Your task to perform on an android device: manage bookmarks in the chrome app Image 0: 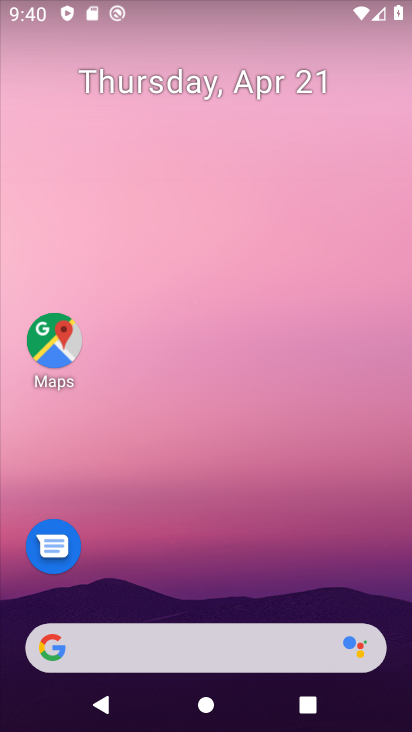
Step 0: drag from (170, 560) to (304, 61)
Your task to perform on an android device: manage bookmarks in the chrome app Image 1: 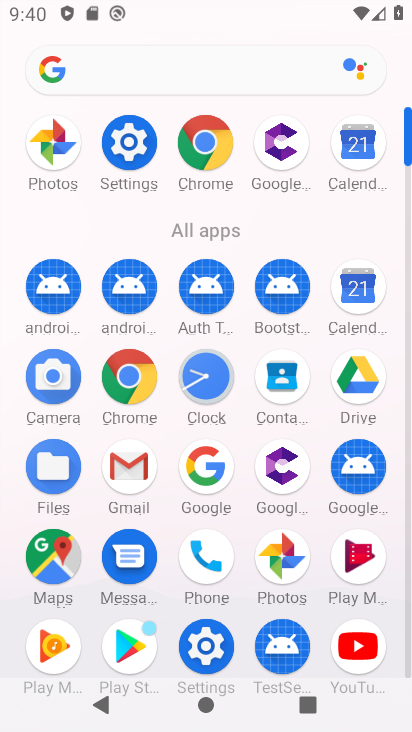
Step 1: click (132, 382)
Your task to perform on an android device: manage bookmarks in the chrome app Image 2: 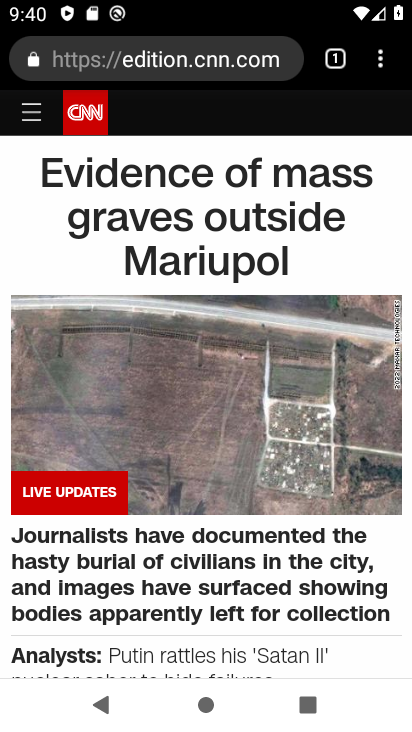
Step 2: drag from (389, 64) to (354, 215)
Your task to perform on an android device: manage bookmarks in the chrome app Image 3: 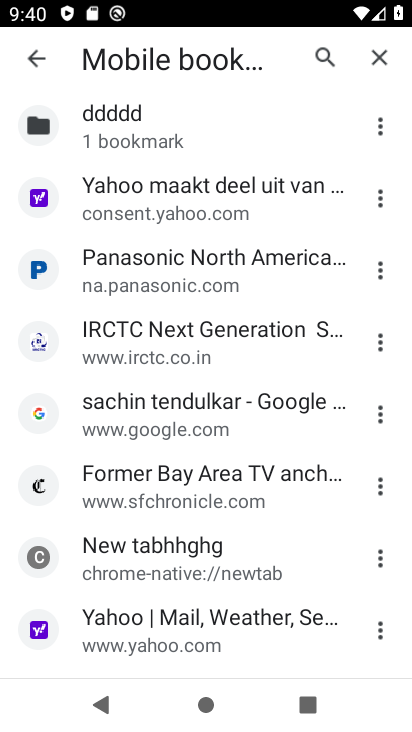
Step 3: drag from (267, 206) to (248, 274)
Your task to perform on an android device: manage bookmarks in the chrome app Image 4: 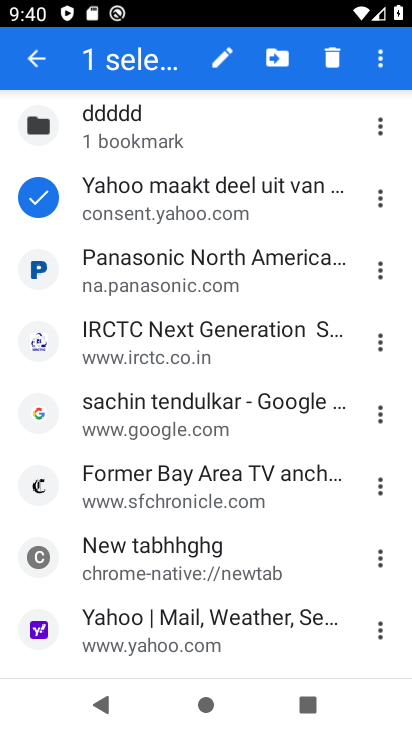
Step 4: click (248, 274)
Your task to perform on an android device: manage bookmarks in the chrome app Image 5: 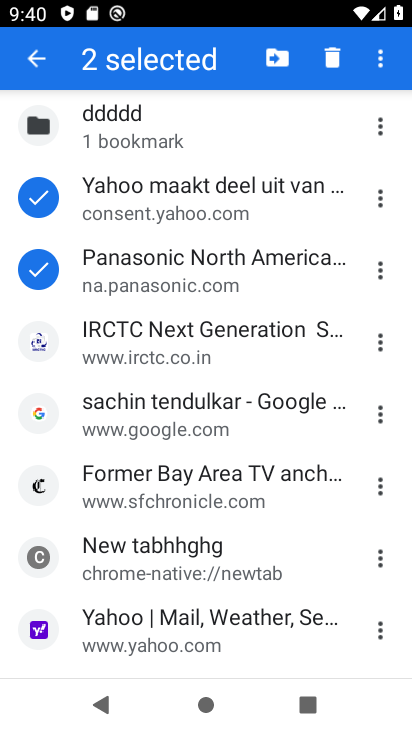
Step 5: click (208, 341)
Your task to perform on an android device: manage bookmarks in the chrome app Image 6: 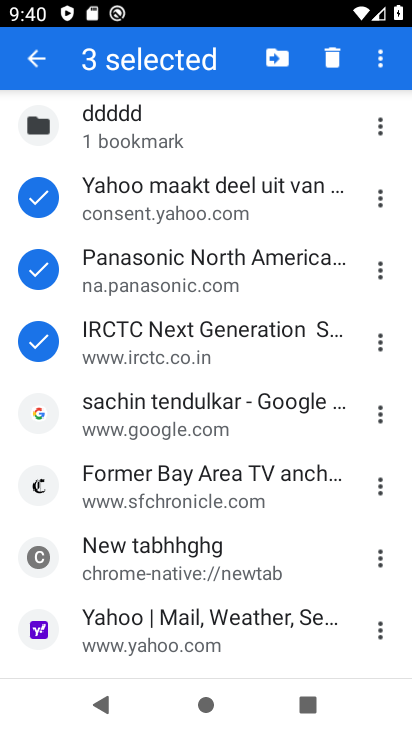
Step 6: click (175, 421)
Your task to perform on an android device: manage bookmarks in the chrome app Image 7: 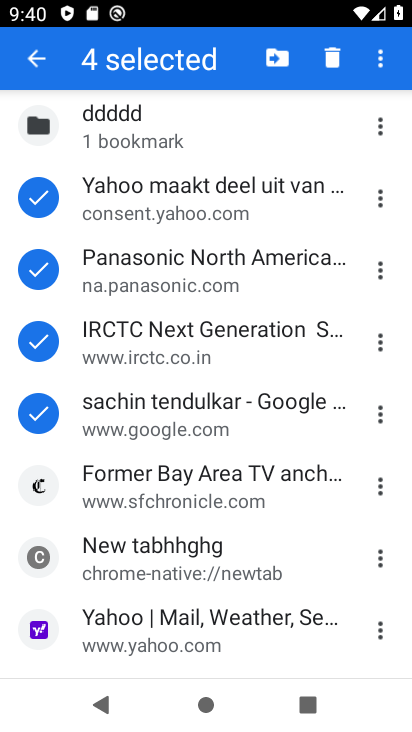
Step 7: click (172, 519)
Your task to perform on an android device: manage bookmarks in the chrome app Image 8: 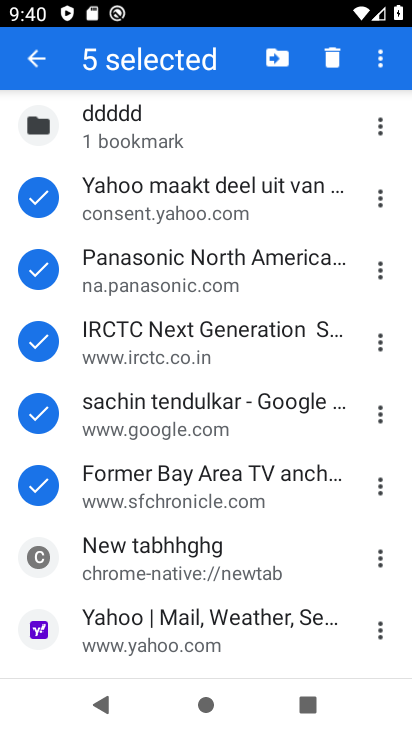
Step 8: click (146, 565)
Your task to perform on an android device: manage bookmarks in the chrome app Image 9: 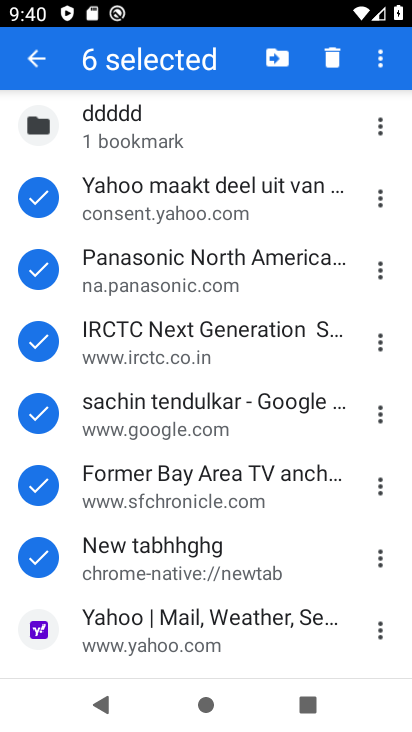
Step 9: click (149, 637)
Your task to perform on an android device: manage bookmarks in the chrome app Image 10: 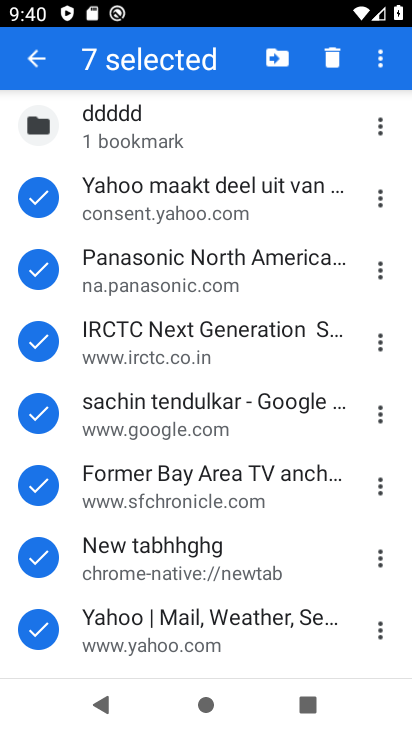
Step 10: drag from (163, 599) to (292, 164)
Your task to perform on an android device: manage bookmarks in the chrome app Image 11: 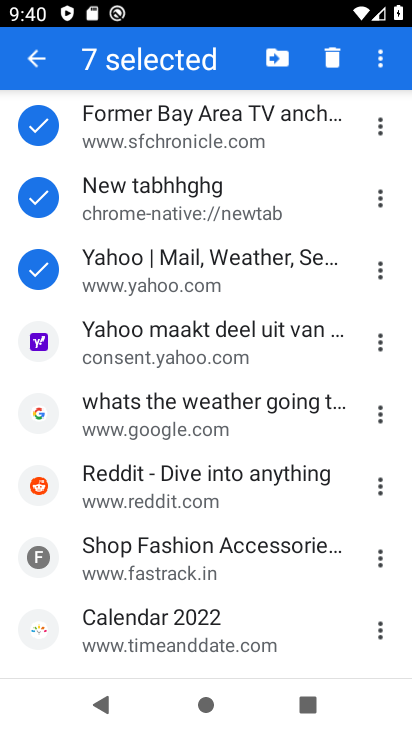
Step 11: click (204, 353)
Your task to perform on an android device: manage bookmarks in the chrome app Image 12: 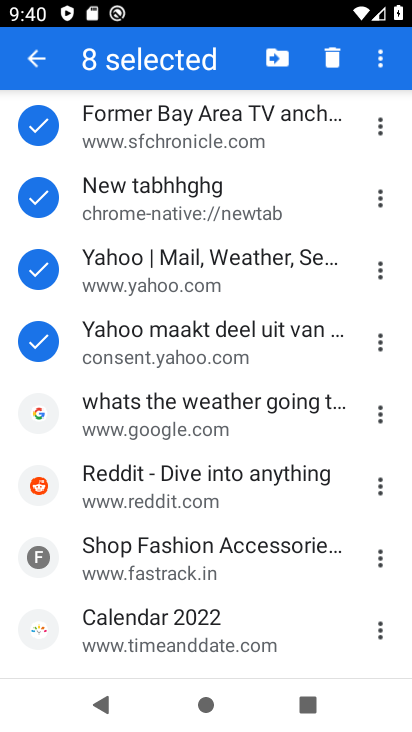
Step 12: click (195, 382)
Your task to perform on an android device: manage bookmarks in the chrome app Image 13: 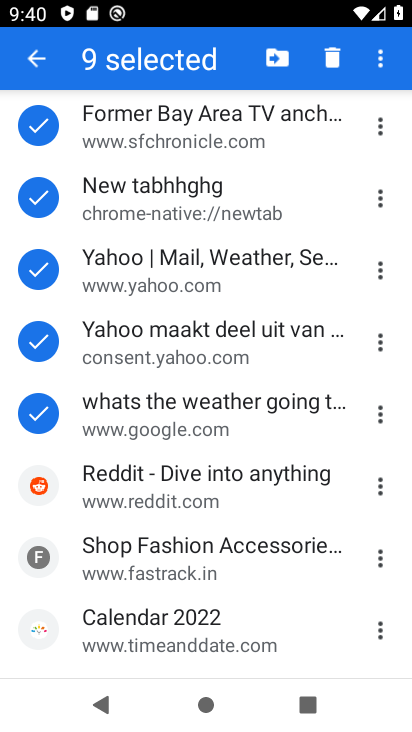
Step 13: click (170, 488)
Your task to perform on an android device: manage bookmarks in the chrome app Image 14: 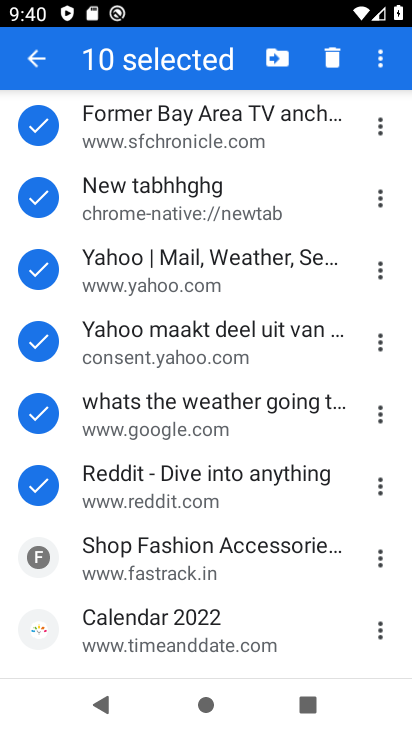
Step 14: drag from (174, 569) to (174, 606)
Your task to perform on an android device: manage bookmarks in the chrome app Image 15: 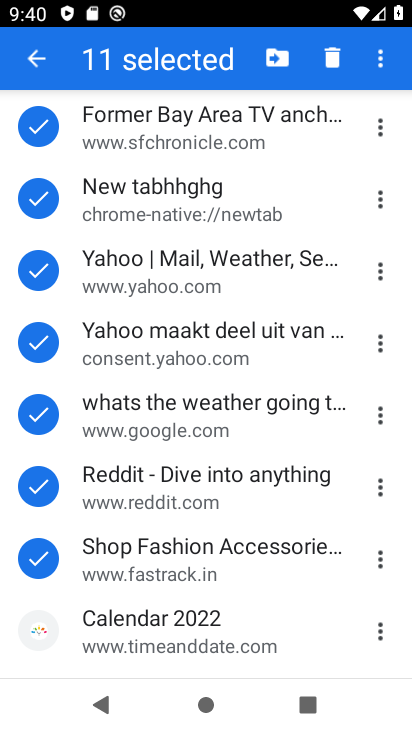
Step 15: click (174, 606)
Your task to perform on an android device: manage bookmarks in the chrome app Image 16: 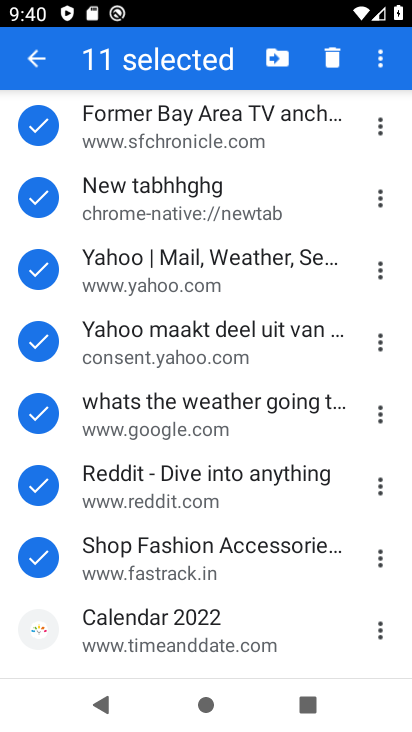
Step 16: click (164, 613)
Your task to perform on an android device: manage bookmarks in the chrome app Image 17: 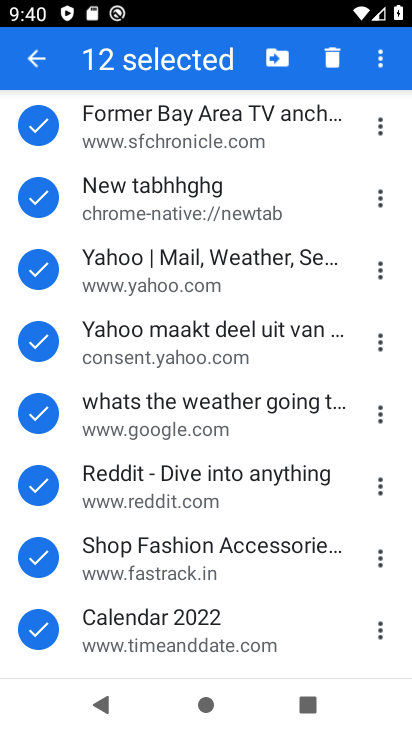
Step 17: drag from (207, 619) to (298, 101)
Your task to perform on an android device: manage bookmarks in the chrome app Image 18: 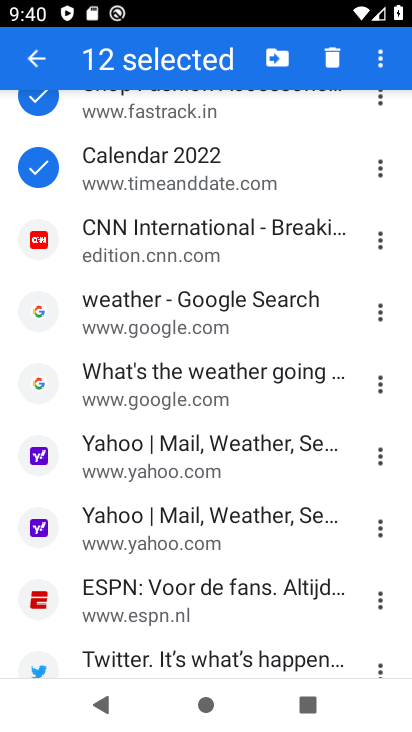
Step 18: click (178, 226)
Your task to perform on an android device: manage bookmarks in the chrome app Image 19: 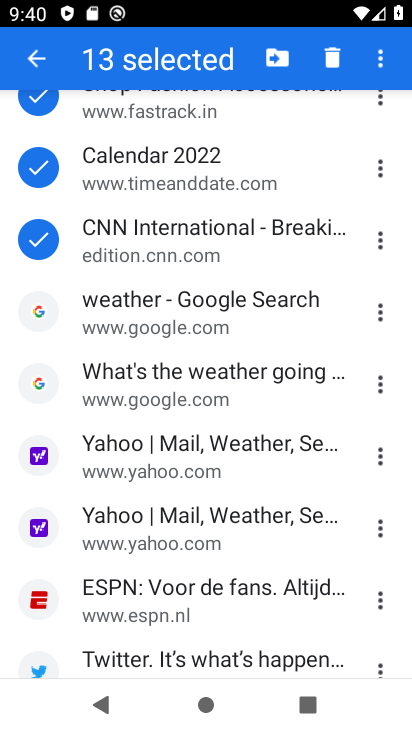
Step 19: click (164, 347)
Your task to perform on an android device: manage bookmarks in the chrome app Image 20: 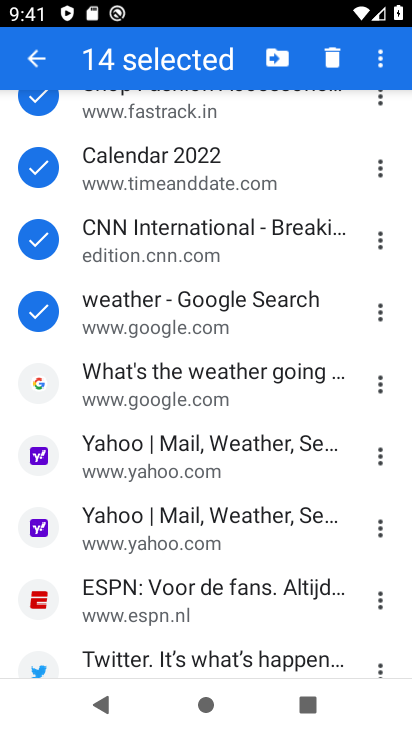
Step 20: click (164, 402)
Your task to perform on an android device: manage bookmarks in the chrome app Image 21: 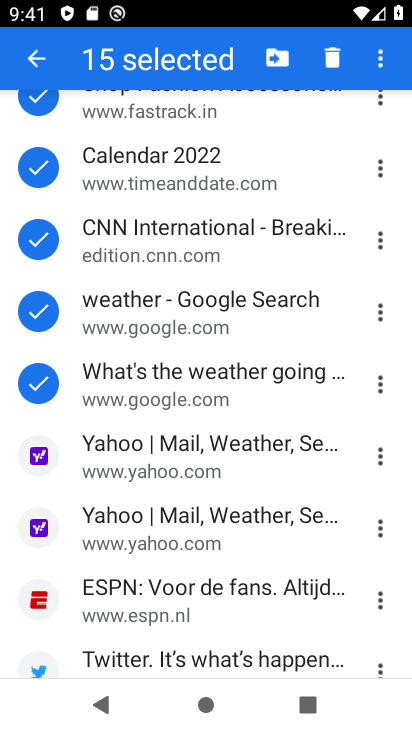
Step 21: drag from (130, 469) to (137, 521)
Your task to perform on an android device: manage bookmarks in the chrome app Image 22: 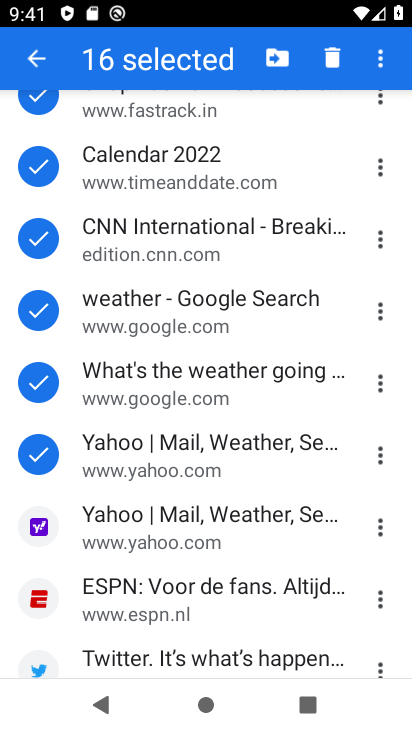
Step 22: click (141, 589)
Your task to perform on an android device: manage bookmarks in the chrome app Image 23: 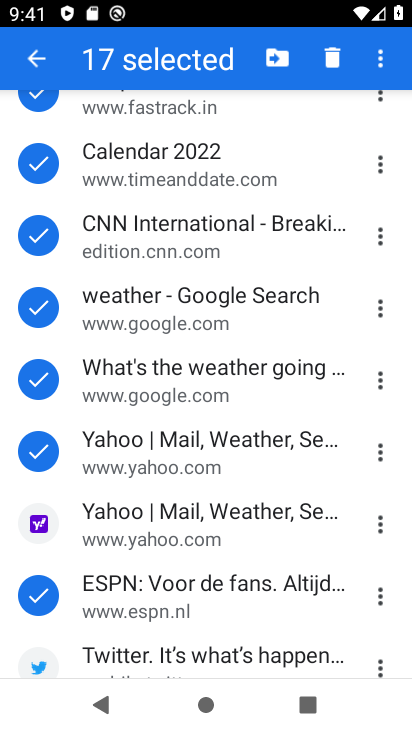
Step 23: click (170, 522)
Your task to perform on an android device: manage bookmarks in the chrome app Image 24: 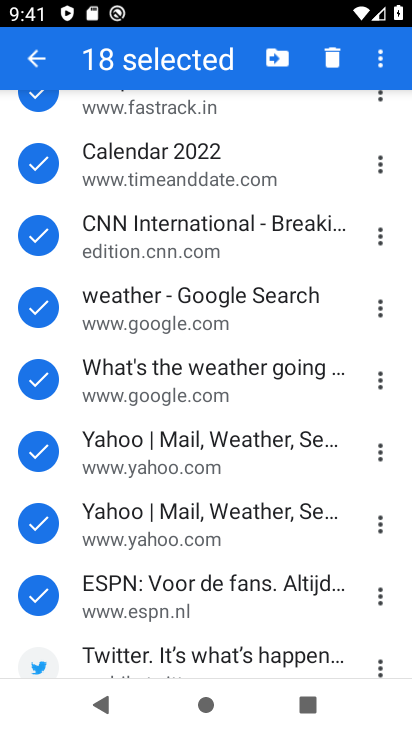
Step 24: drag from (156, 562) to (244, 169)
Your task to perform on an android device: manage bookmarks in the chrome app Image 25: 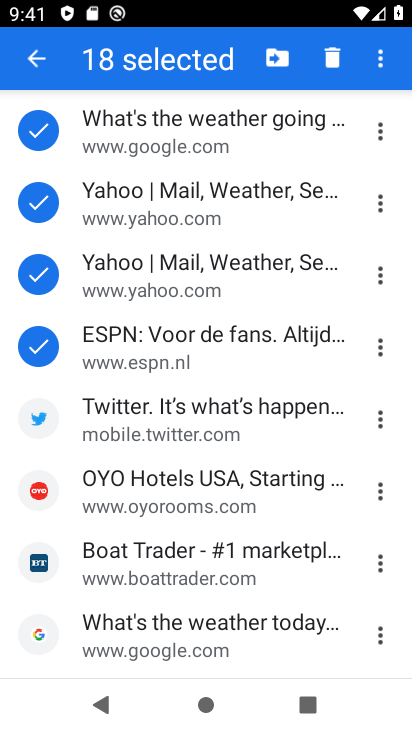
Step 25: click (160, 415)
Your task to perform on an android device: manage bookmarks in the chrome app Image 26: 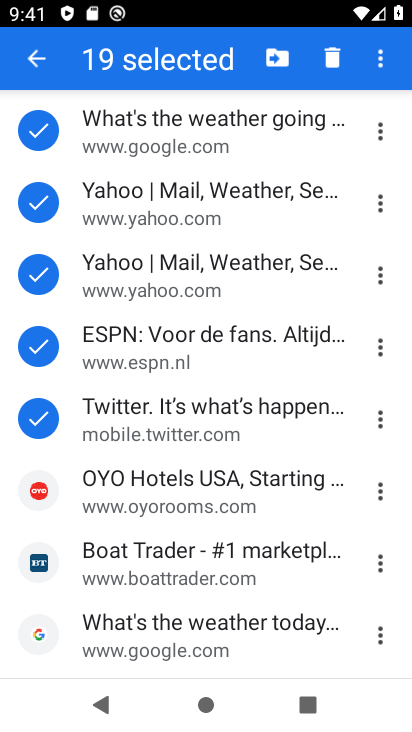
Step 26: click (149, 510)
Your task to perform on an android device: manage bookmarks in the chrome app Image 27: 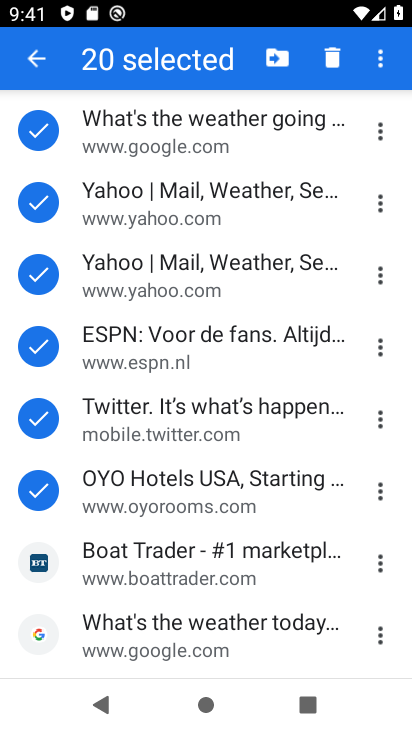
Step 27: click (161, 565)
Your task to perform on an android device: manage bookmarks in the chrome app Image 28: 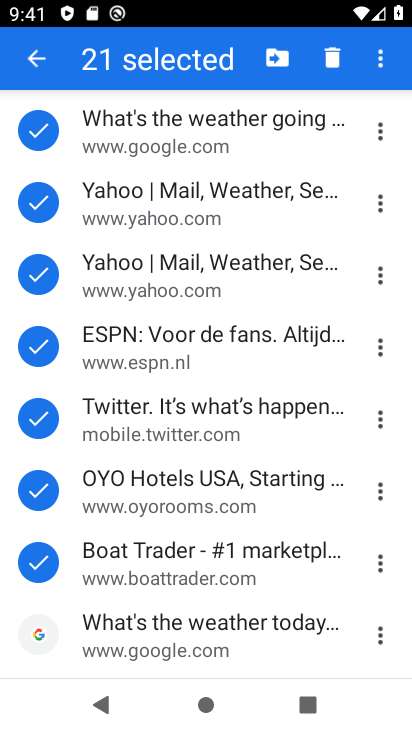
Step 28: click (141, 645)
Your task to perform on an android device: manage bookmarks in the chrome app Image 29: 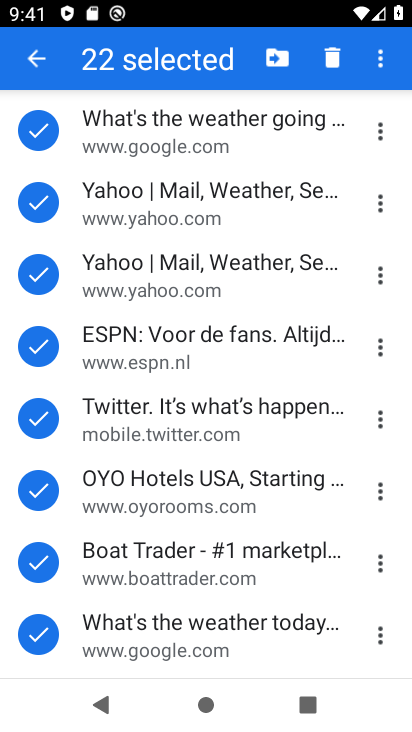
Step 29: drag from (145, 566) to (268, 73)
Your task to perform on an android device: manage bookmarks in the chrome app Image 30: 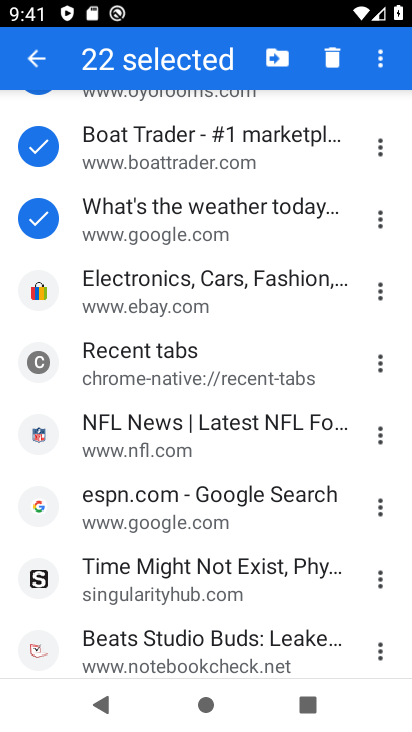
Step 30: click (175, 293)
Your task to perform on an android device: manage bookmarks in the chrome app Image 31: 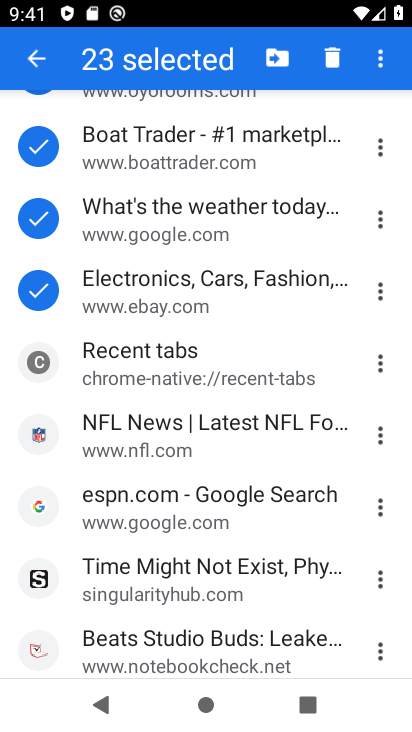
Step 31: click (175, 356)
Your task to perform on an android device: manage bookmarks in the chrome app Image 32: 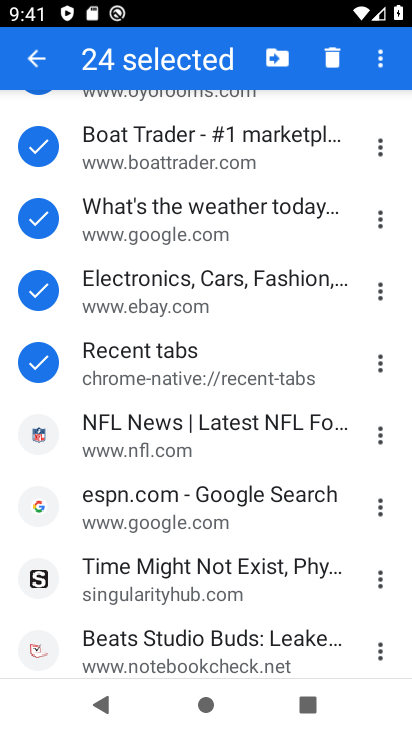
Step 32: click (155, 428)
Your task to perform on an android device: manage bookmarks in the chrome app Image 33: 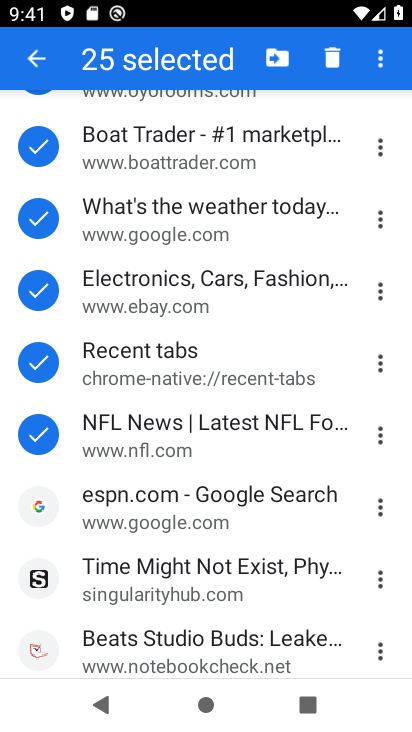
Step 33: click (160, 518)
Your task to perform on an android device: manage bookmarks in the chrome app Image 34: 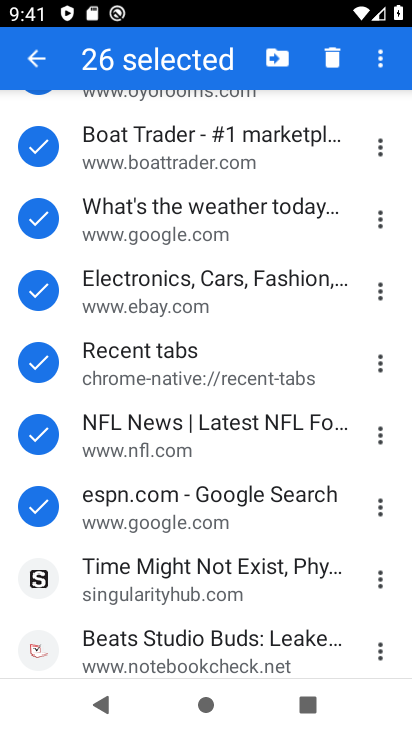
Step 34: click (145, 600)
Your task to perform on an android device: manage bookmarks in the chrome app Image 35: 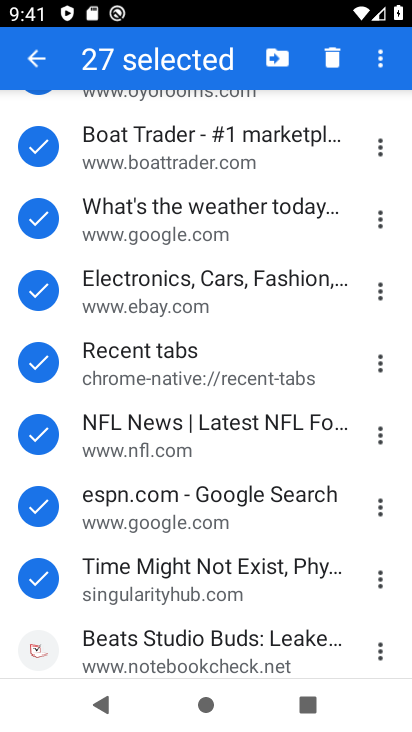
Step 35: click (138, 640)
Your task to perform on an android device: manage bookmarks in the chrome app Image 36: 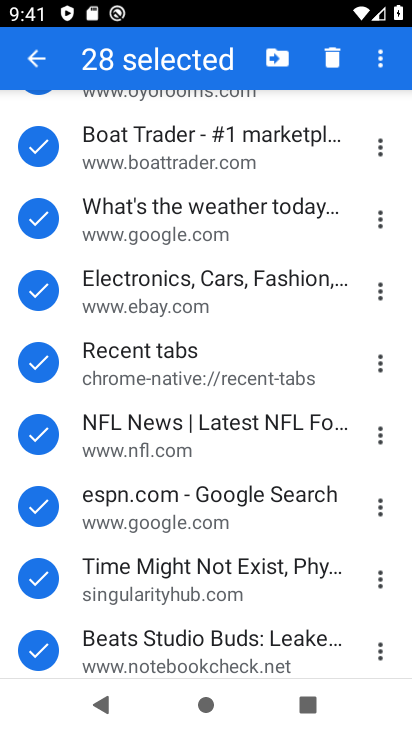
Step 36: drag from (137, 625) to (250, 76)
Your task to perform on an android device: manage bookmarks in the chrome app Image 37: 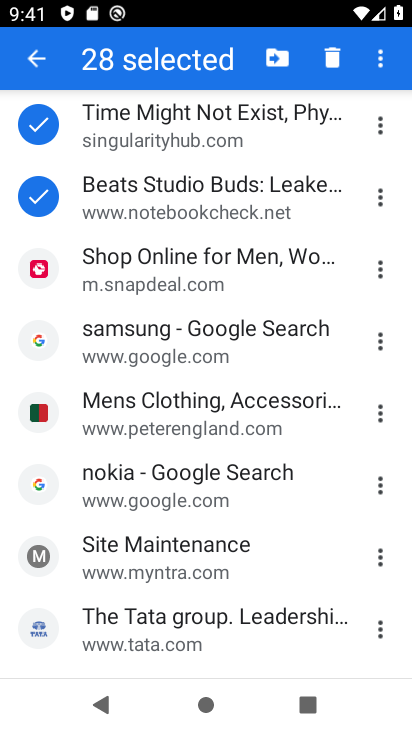
Step 37: click (145, 268)
Your task to perform on an android device: manage bookmarks in the chrome app Image 38: 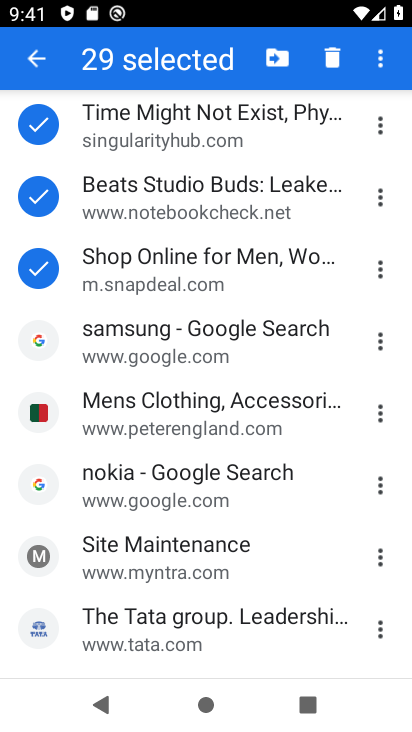
Step 38: click (156, 339)
Your task to perform on an android device: manage bookmarks in the chrome app Image 39: 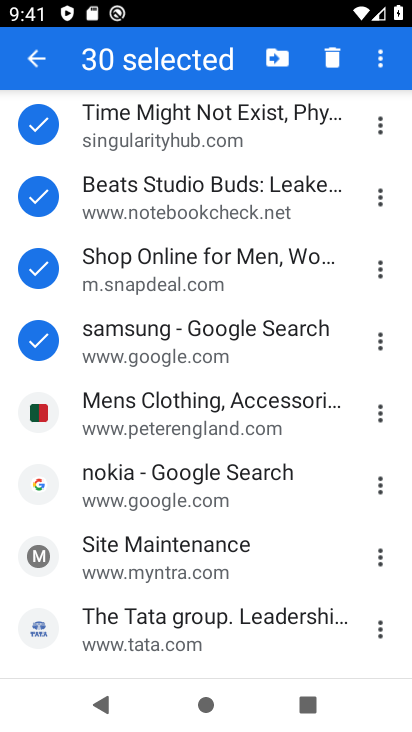
Step 39: click (150, 420)
Your task to perform on an android device: manage bookmarks in the chrome app Image 40: 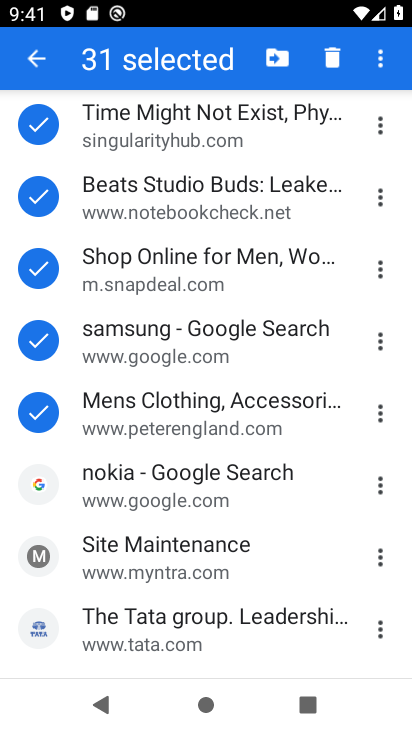
Step 40: click (151, 489)
Your task to perform on an android device: manage bookmarks in the chrome app Image 41: 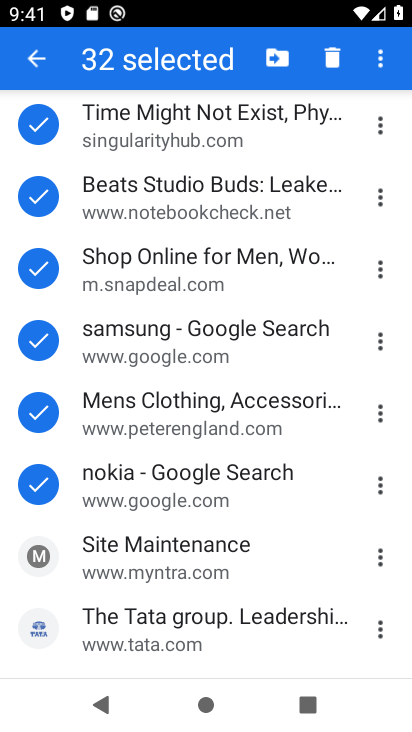
Step 41: click (161, 573)
Your task to perform on an android device: manage bookmarks in the chrome app Image 42: 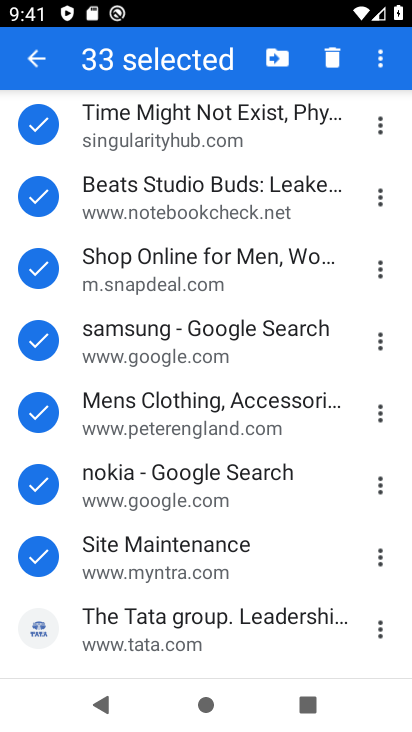
Step 42: click (179, 641)
Your task to perform on an android device: manage bookmarks in the chrome app Image 43: 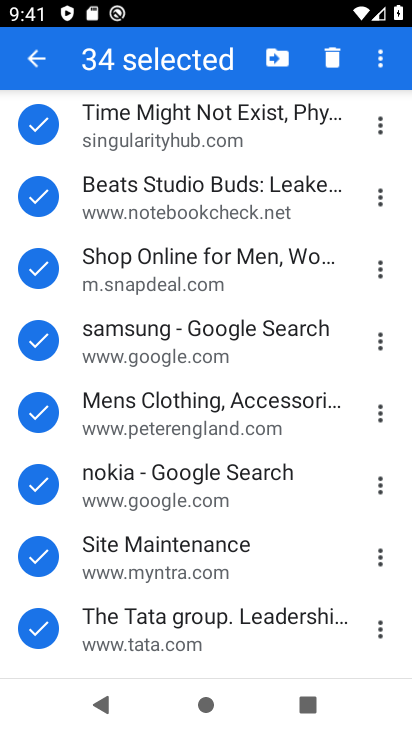
Step 43: drag from (194, 568) to (306, 43)
Your task to perform on an android device: manage bookmarks in the chrome app Image 44: 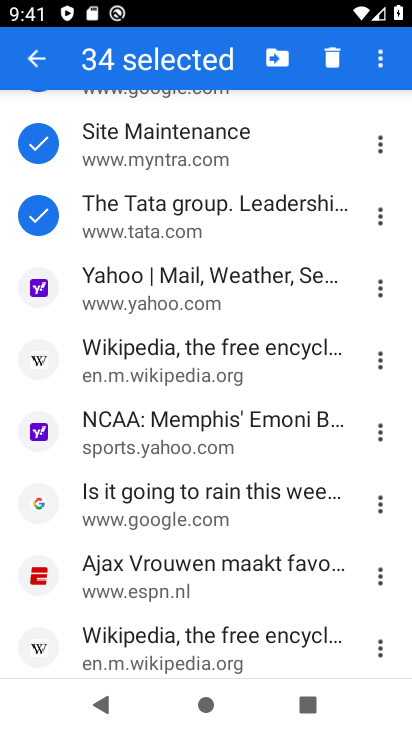
Step 44: click (158, 293)
Your task to perform on an android device: manage bookmarks in the chrome app Image 45: 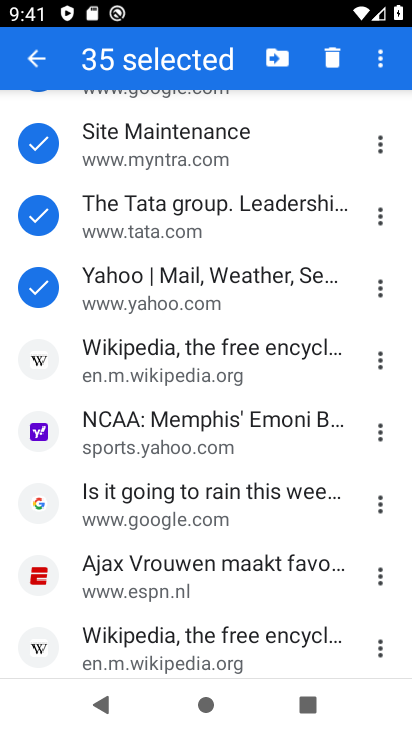
Step 45: click (153, 369)
Your task to perform on an android device: manage bookmarks in the chrome app Image 46: 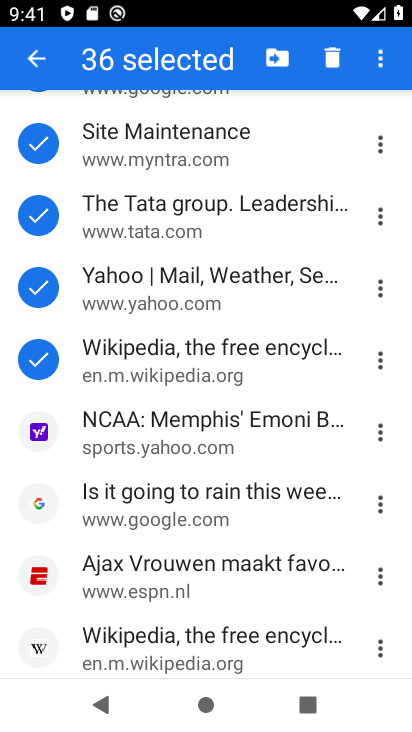
Step 46: click (142, 463)
Your task to perform on an android device: manage bookmarks in the chrome app Image 47: 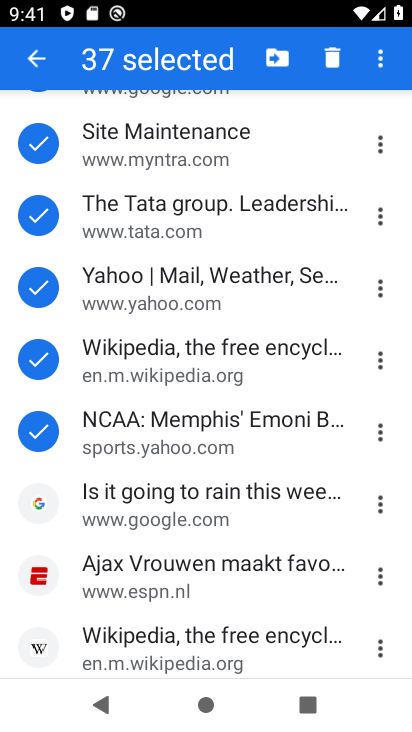
Step 47: click (120, 523)
Your task to perform on an android device: manage bookmarks in the chrome app Image 48: 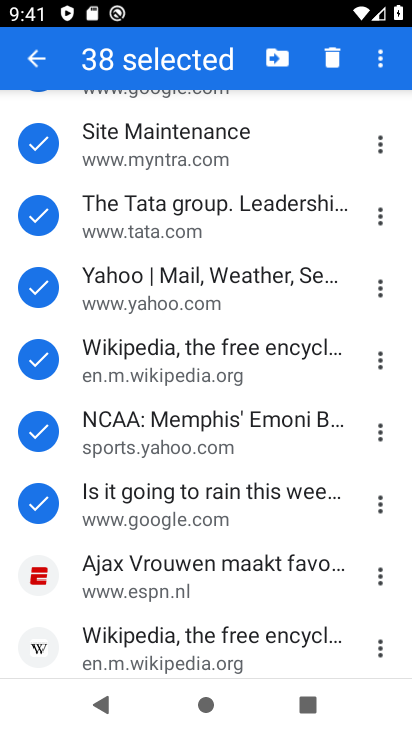
Step 48: click (118, 568)
Your task to perform on an android device: manage bookmarks in the chrome app Image 49: 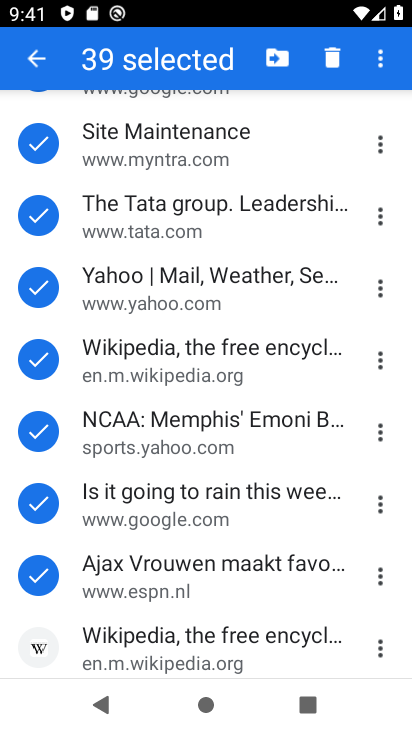
Step 49: drag from (104, 646) to (256, 31)
Your task to perform on an android device: manage bookmarks in the chrome app Image 50: 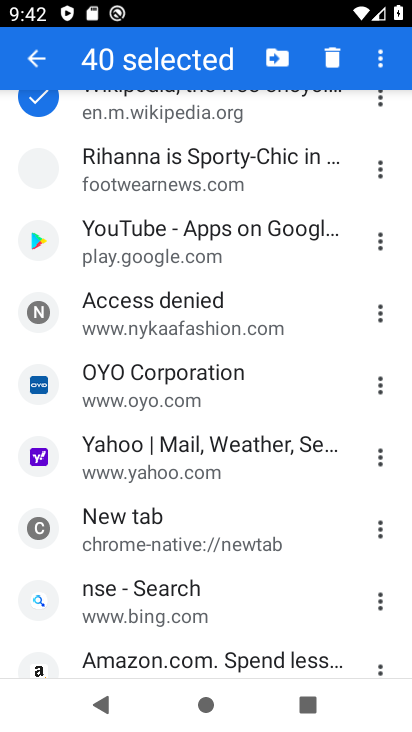
Step 50: click (141, 190)
Your task to perform on an android device: manage bookmarks in the chrome app Image 51: 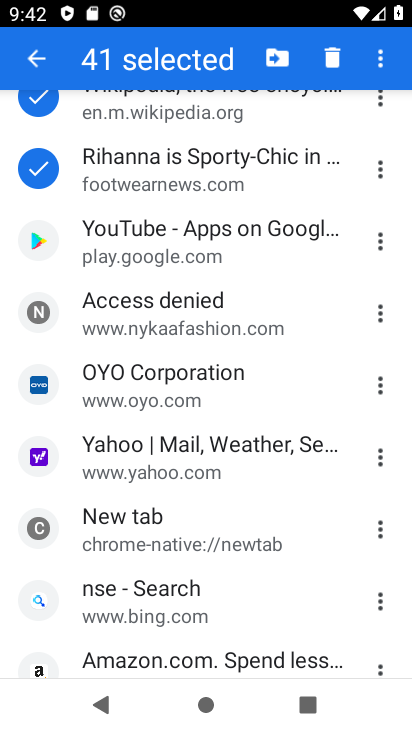
Step 51: click (139, 237)
Your task to perform on an android device: manage bookmarks in the chrome app Image 52: 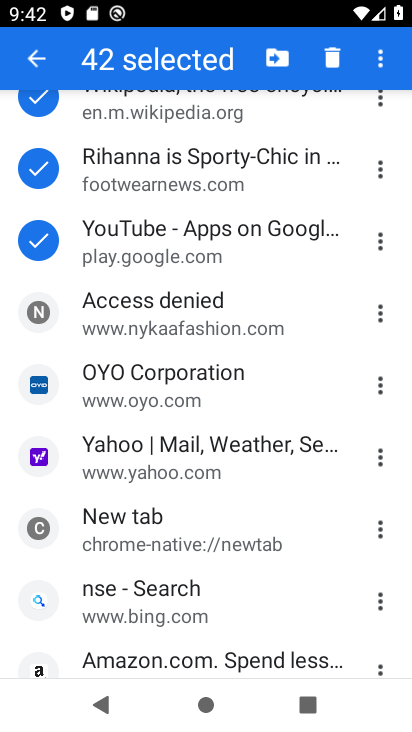
Step 52: drag from (124, 311) to (123, 366)
Your task to perform on an android device: manage bookmarks in the chrome app Image 53: 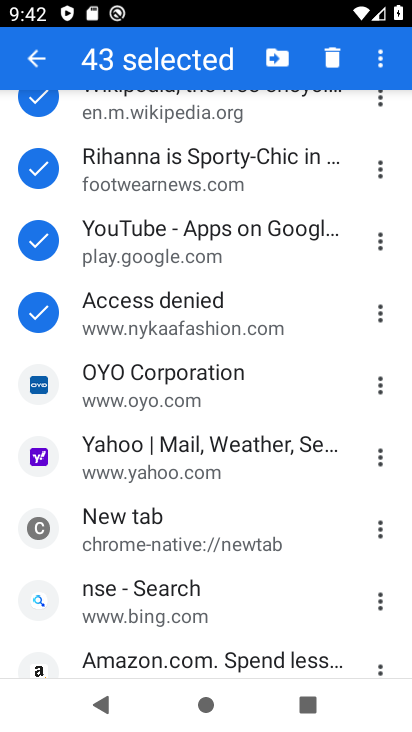
Step 53: click (106, 464)
Your task to perform on an android device: manage bookmarks in the chrome app Image 54: 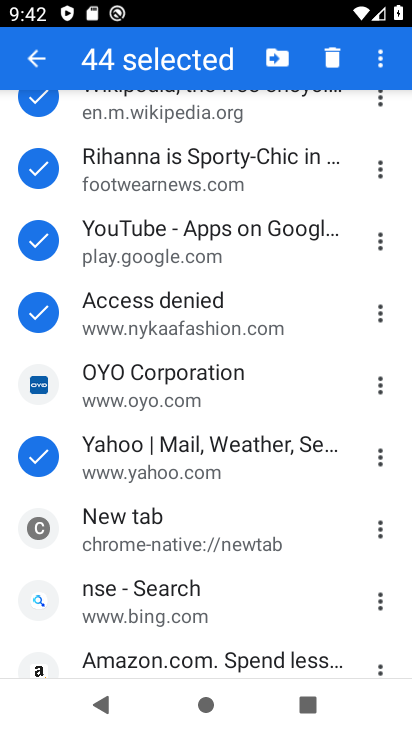
Step 54: click (130, 398)
Your task to perform on an android device: manage bookmarks in the chrome app Image 55: 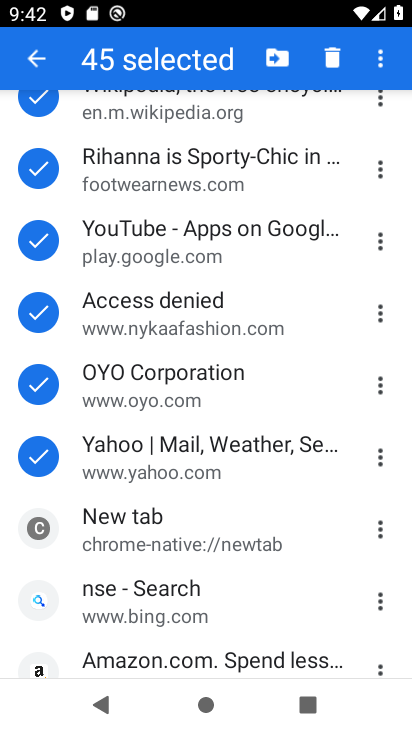
Step 55: click (113, 524)
Your task to perform on an android device: manage bookmarks in the chrome app Image 56: 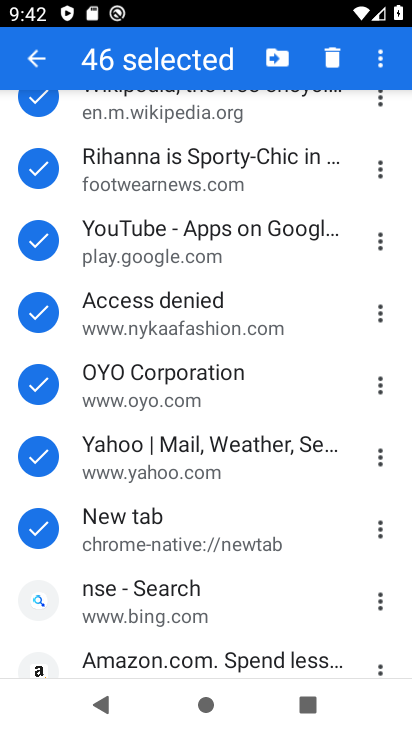
Step 56: click (98, 586)
Your task to perform on an android device: manage bookmarks in the chrome app Image 57: 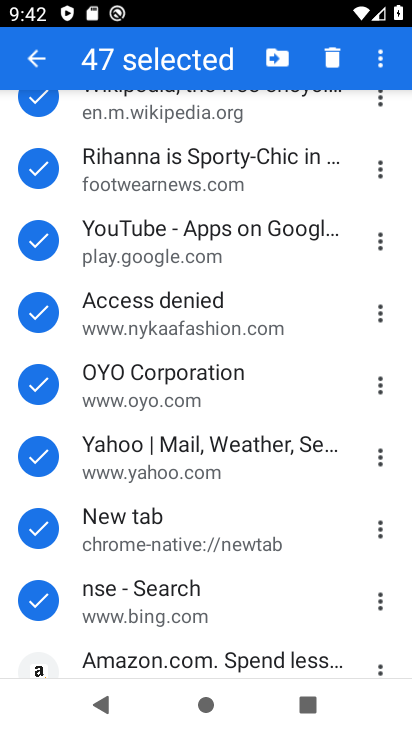
Step 57: drag from (112, 571) to (220, 42)
Your task to perform on an android device: manage bookmarks in the chrome app Image 58: 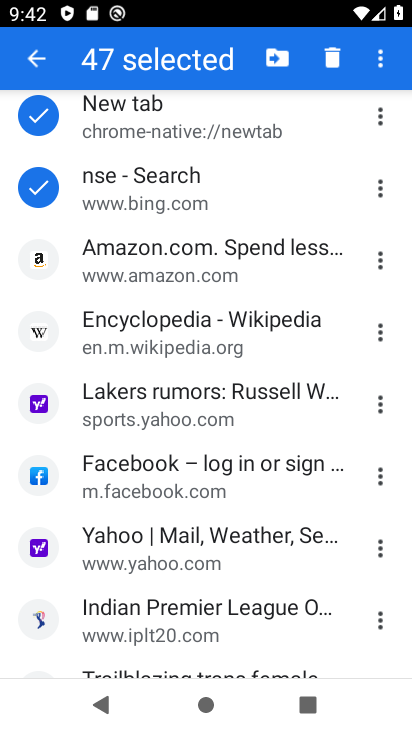
Step 58: drag from (114, 585) to (232, 66)
Your task to perform on an android device: manage bookmarks in the chrome app Image 59: 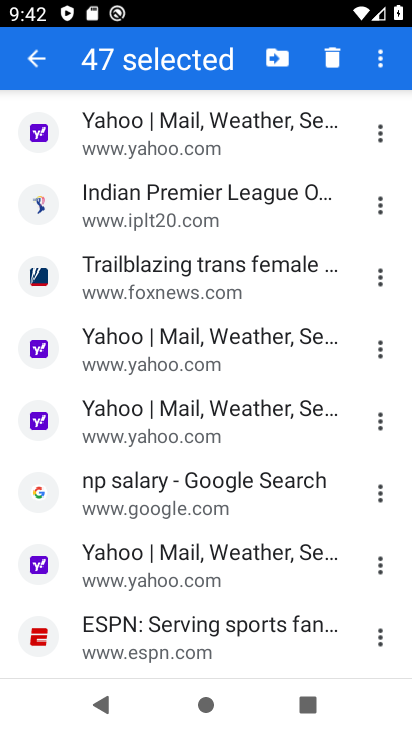
Step 59: drag from (124, 555) to (231, 44)
Your task to perform on an android device: manage bookmarks in the chrome app Image 60: 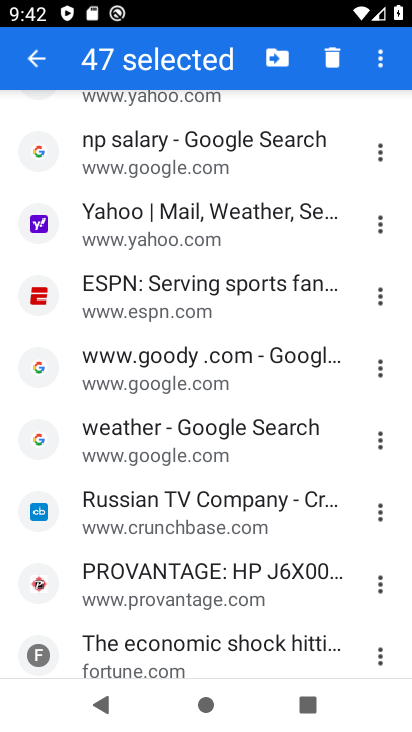
Step 60: drag from (115, 598) to (239, 74)
Your task to perform on an android device: manage bookmarks in the chrome app Image 61: 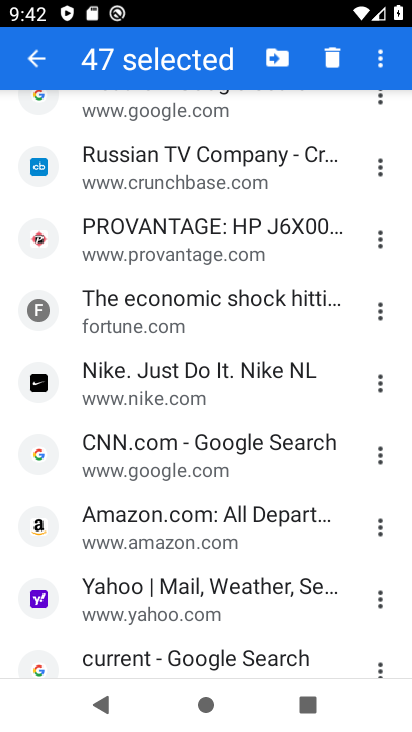
Step 61: click (278, 58)
Your task to perform on an android device: manage bookmarks in the chrome app Image 62: 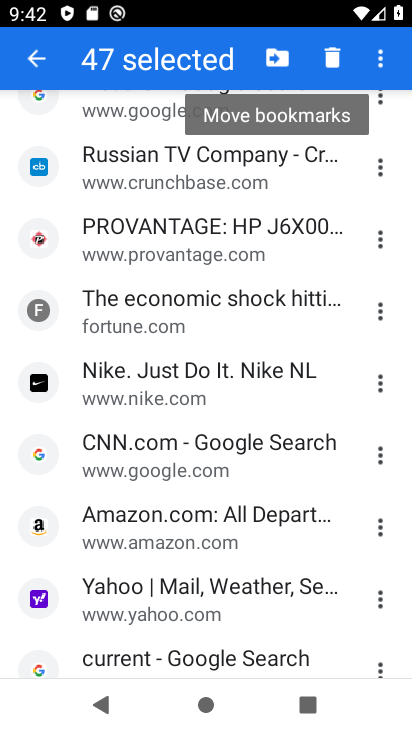
Step 62: click (313, 121)
Your task to perform on an android device: manage bookmarks in the chrome app Image 63: 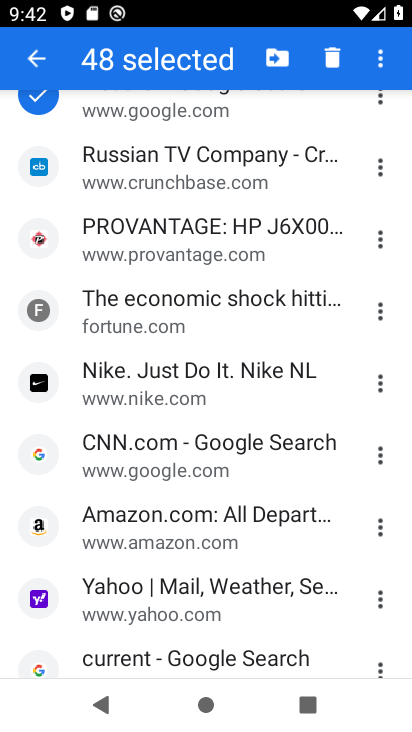
Step 63: click (388, 67)
Your task to perform on an android device: manage bookmarks in the chrome app Image 64: 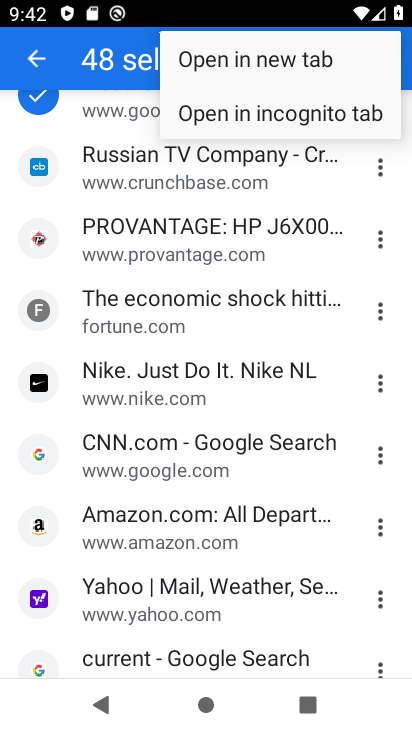
Step 64: click (102, 44)
Your task to perform on an android device: manage bookmarks in the chrome app Image 65: 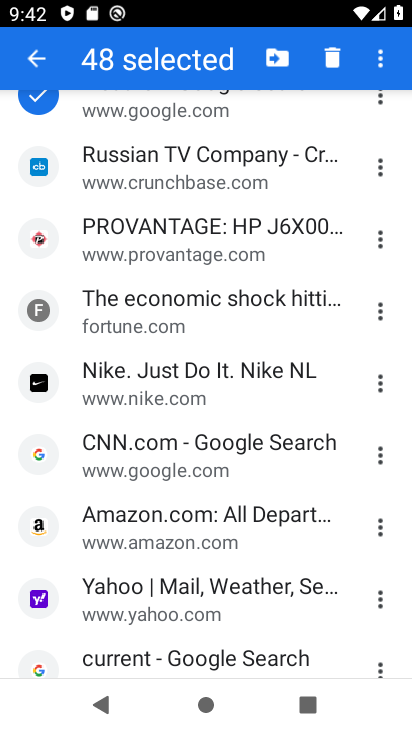
Step 65: click (275, 63)
Your task to perform on an android device: manage bookmarks in the chrome app Image 66: 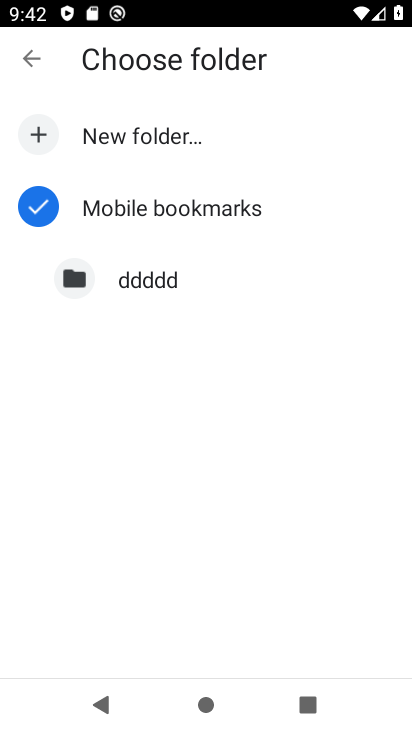
Step 66: click (180, 270)
Your task to perform on an android device: manage bookmarks in the chrome app Image 67: 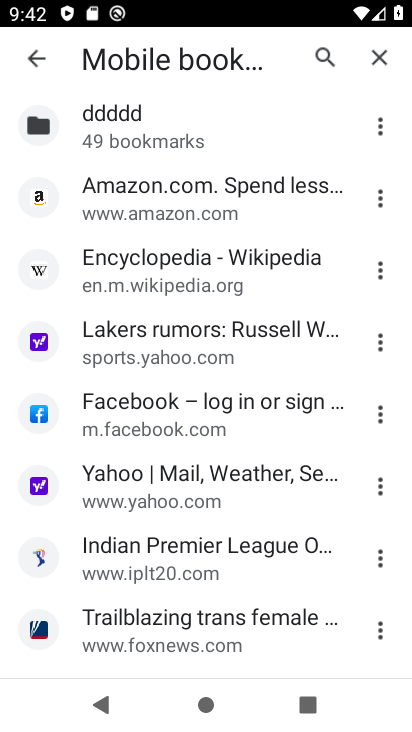
Step 67: task complete